Your task to perform on an android device: turn off notifications in google photos Image 0: 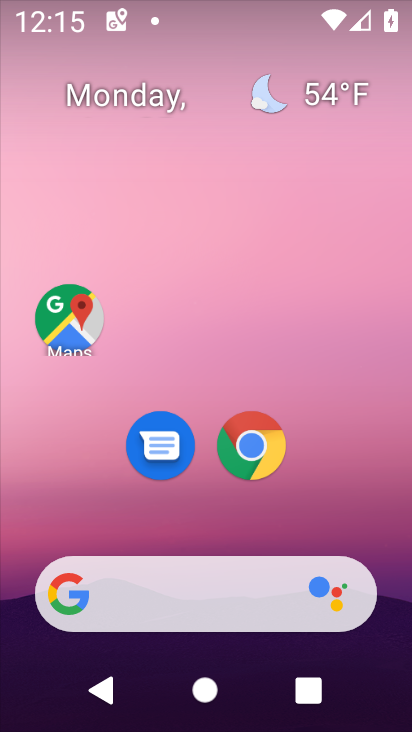
Step 0: drag from (375, 451) to (367, 142)
Your task to perform on an android device: turn off notifications in google photos Image 1: 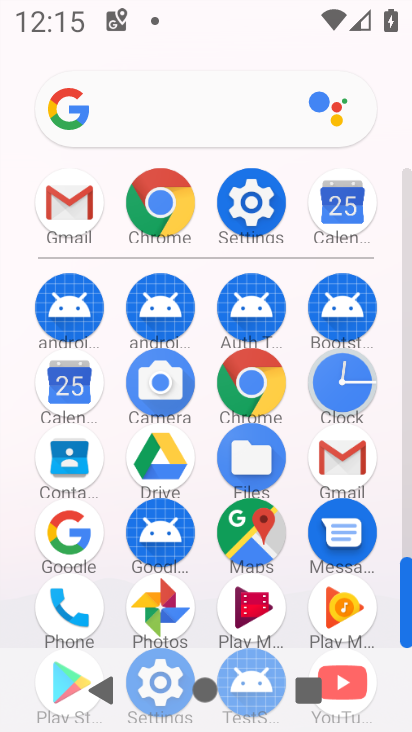
Step 1: drag from (377, 473) to (384, 202)
Your task to perform on an android device: turn off notifications in google photos Image 2: 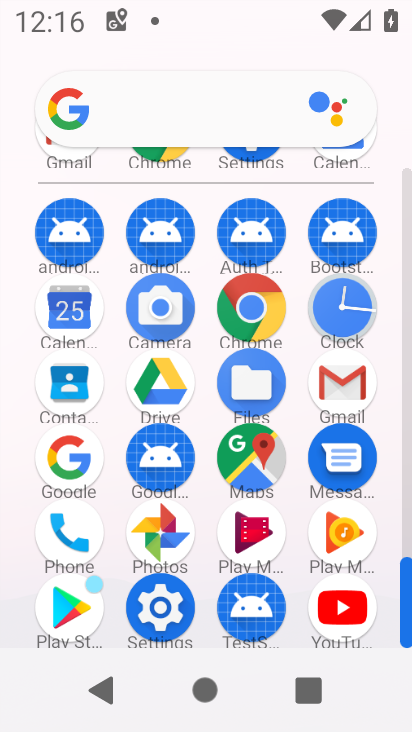
Step 2: click (177, 525)
Your task to perform on an android device: turn off notifications in google photos Image 3: 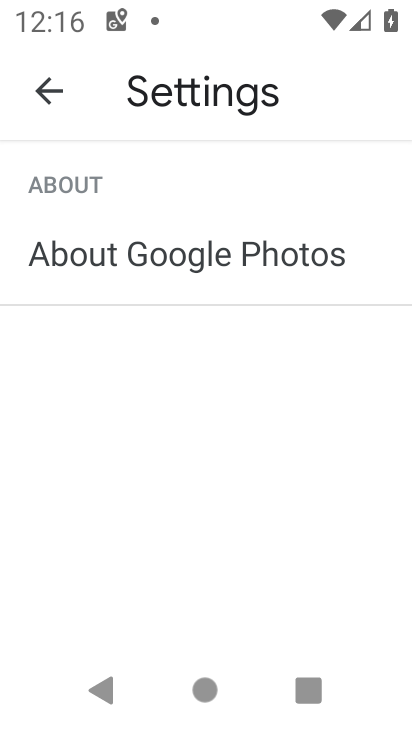
Step 3: click (56, 97)
Your task to perform on an android device: turn off notifications in google photos Image 4: 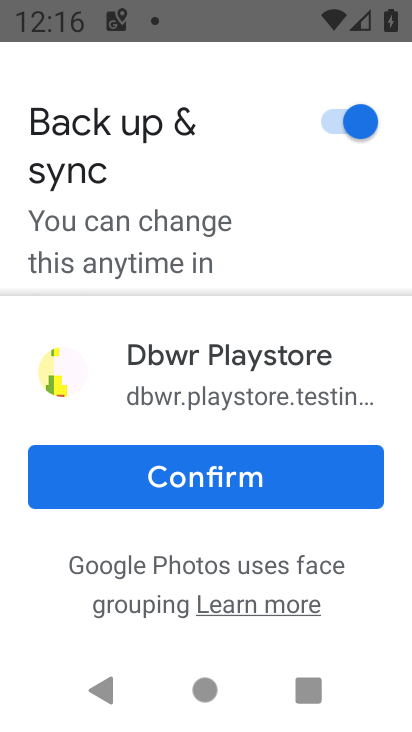
Step 4: click (252, 490)
Your task to perform on an android device: turn off notifications in google photos Image 5: 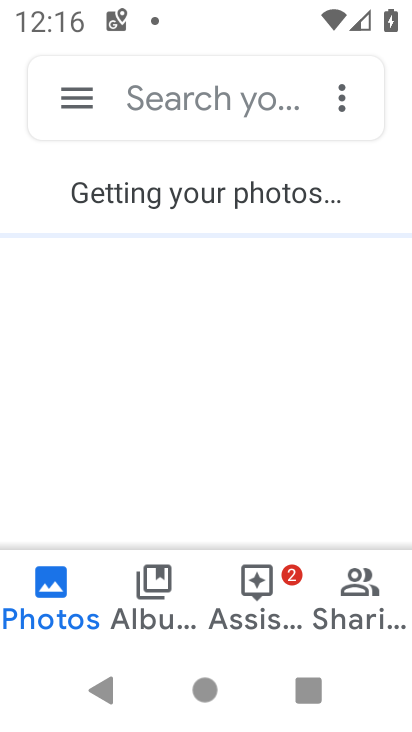
Step 5: click (76, 94)
Your task to perform on an android device: turn off notifications in google photos Image 6: 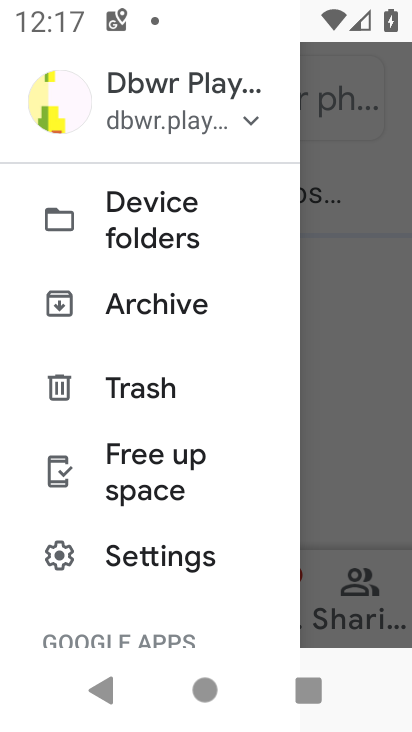
Step 6: click (190, 558)
Your task to perform on an android device: turn off notifications in google photos Image 7: 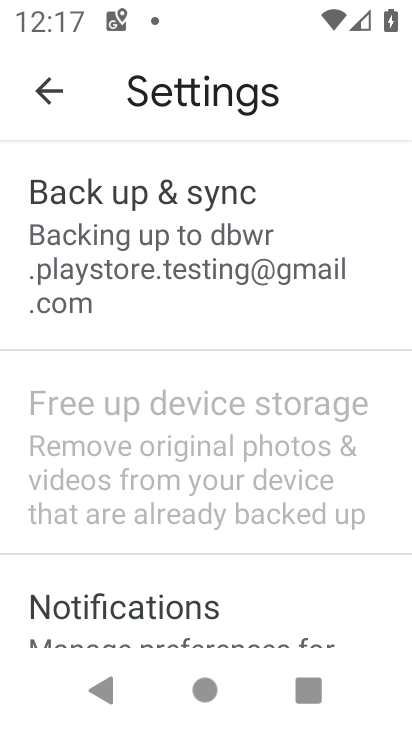
Step 7: drag from (211, 568) to (223, 288)
Your task to perform on an android device: turn off notifications in google photos Image 8: 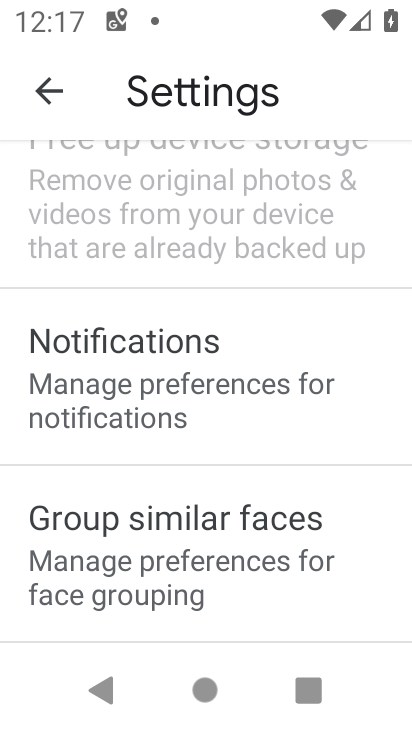
Step 8: click (145, 387)
Your task to perform on an android device: turn off notifications in google photos Image 9: 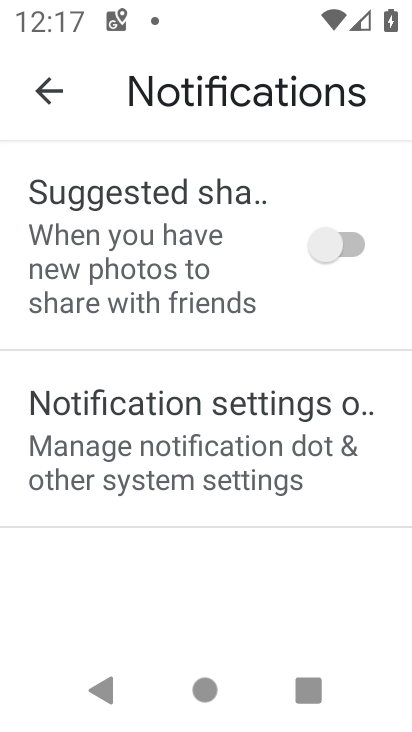
Step 9: click (199, 456)
Your task to perform on an android device: turn off notifications in google photos Image 10: 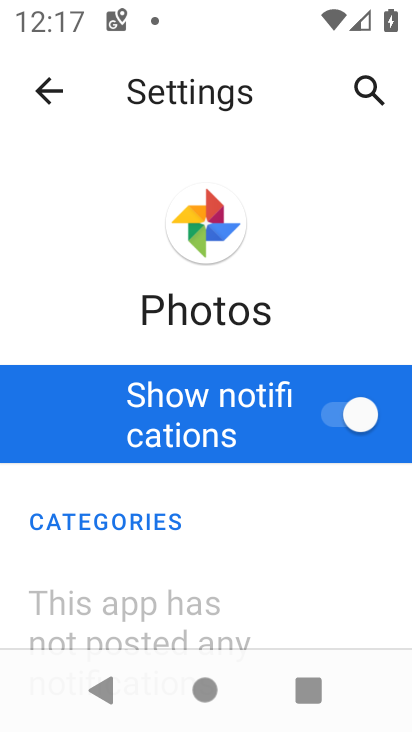
Step 10: click (331, 414)
Your task to perform on an android device: turn off notifications in google photos Image 11: 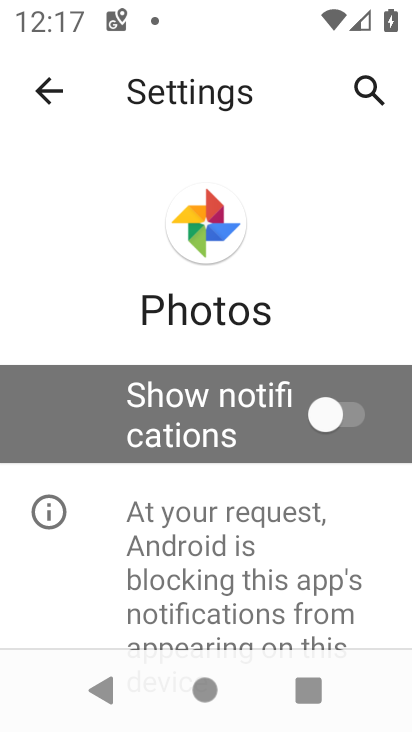
Step 11: task complete